Your task to perform on an android device: Open Reddit.com Image 0: 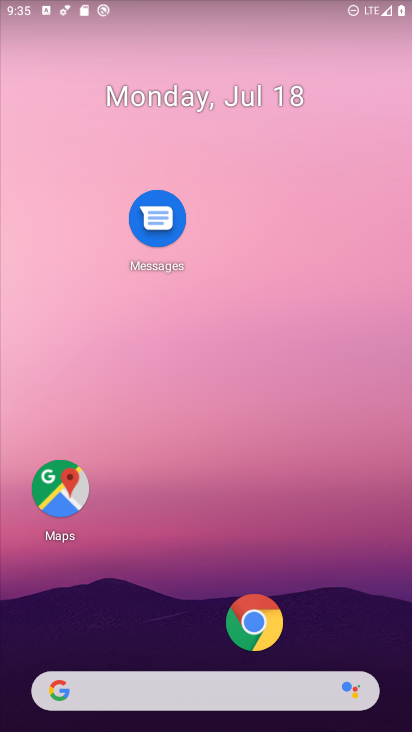
Step 0: drag from (190, 684) to (243, 205)
Your task to perform on an android device: Open Reddit.com Image 1: 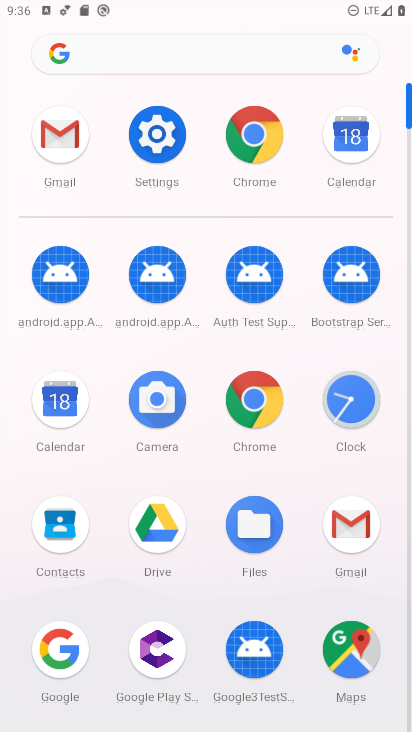
Step 1: drag from (257, 537) to (291, 257)
Your task to perform on an android device: Open Reddit.com Image 2: 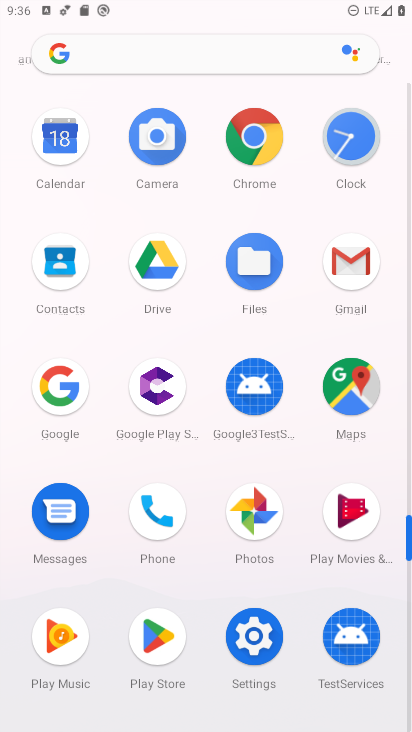
Step 2: click (251, 169)
Your task to perform on an android device: Open Reddit.com Image 3: 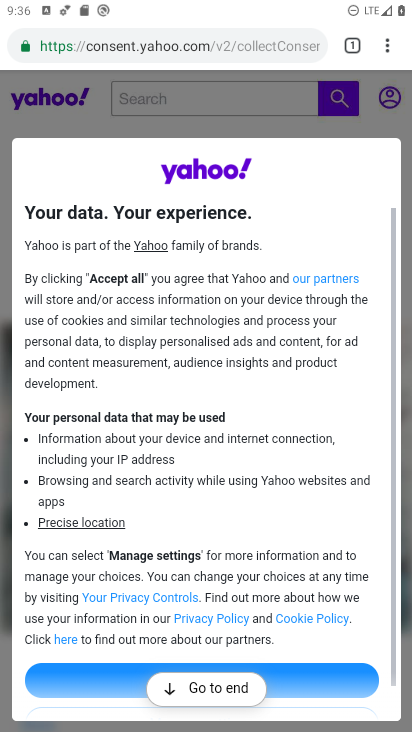
Step 3: click (235, 39)
Your task to perform on an android device: Open Reddit.com Image 4: 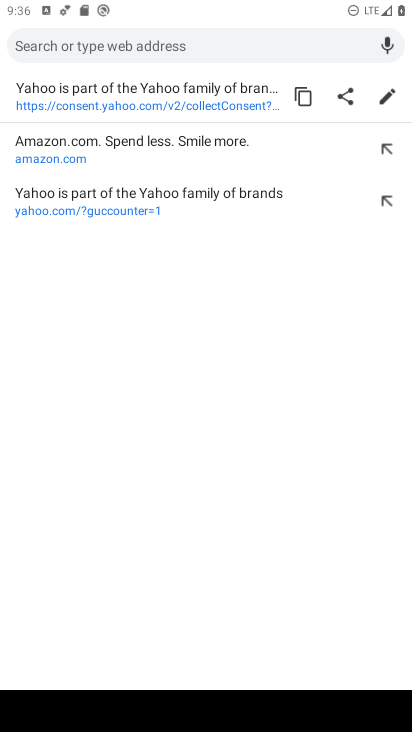
Step 4: type "reddit"
Your task to perform on an android device: Open Reddit.com Image 5: 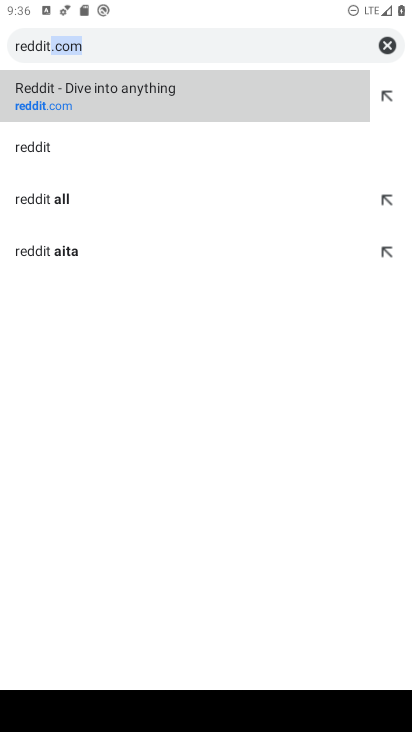
Step 5: click (143, 90)
Your task to perform on an android device: Open Reddit.com Image 6: 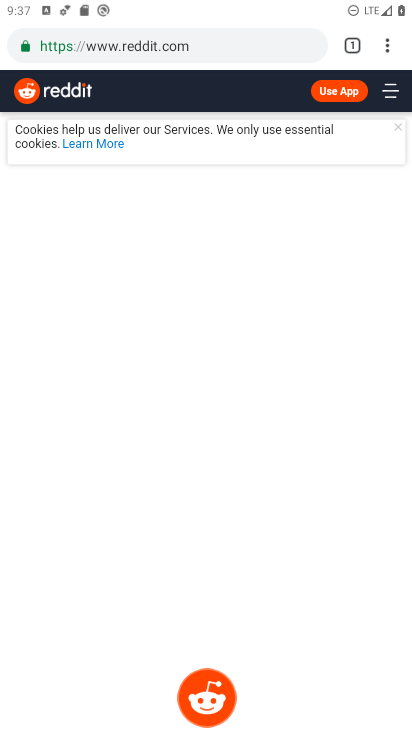
Step 6: task complete